Your task to perform on an android device: Open Google Chrome and click the shortcut for Amazon.com Image 0: 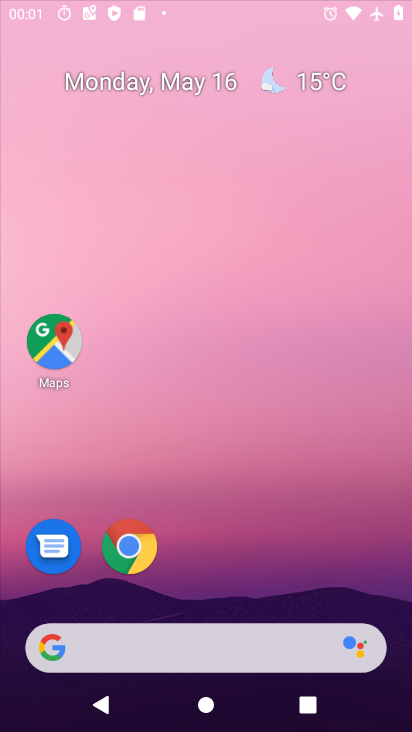
Step 0: drag from (203, 276) to (158, 47)
Your task to perform on an android device: Open Google Chrome and click the shortcut for Amazon.com Image 1: 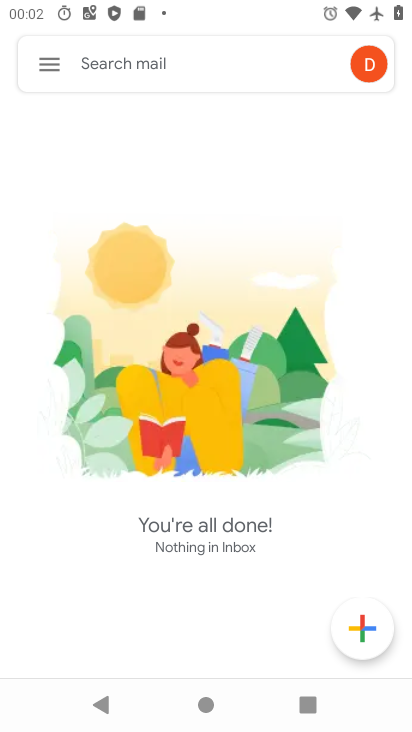
Step 1: click (204, 294)
Your task to perform on an android device: Open Google Chrome and click the shortcut for Amazon.com Image 2: 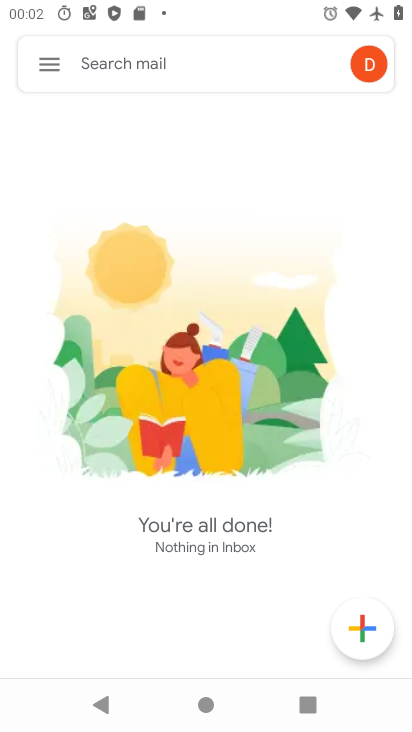
Step 2: press back button
Your task to perform on an android device: Open Google Chrome and click the shortcut for Amazon.com Image 3: 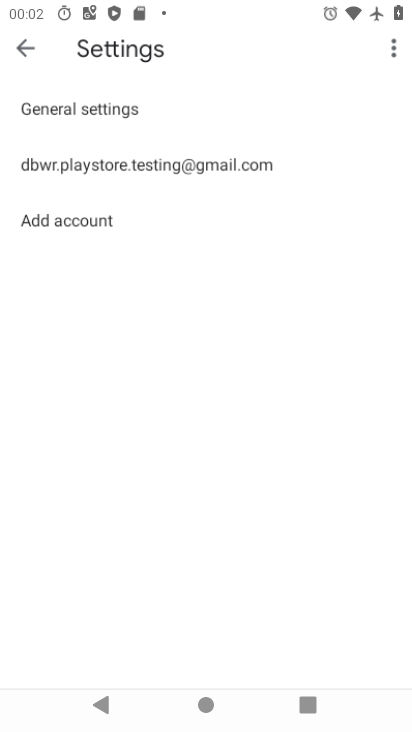
Step 3: press back button
Your task to perform on an android device: Open Google Chrome and click the shortcut for Amazon.com Image 4: 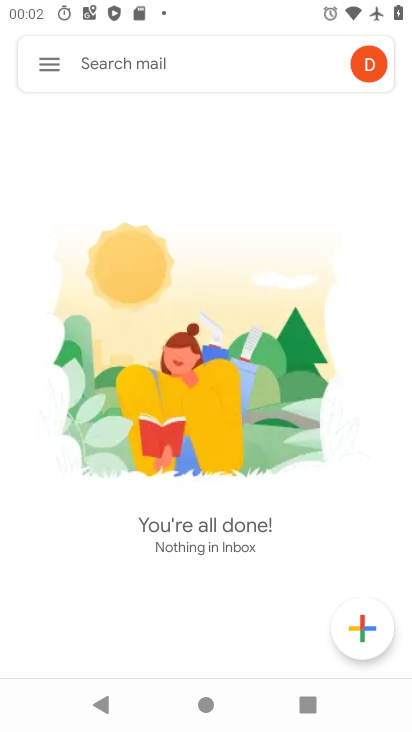
Step 4: click (45, 64)
Your task to perform on an android device: Open Google Chrome and click the shortcut for Amazon.com Image 5: 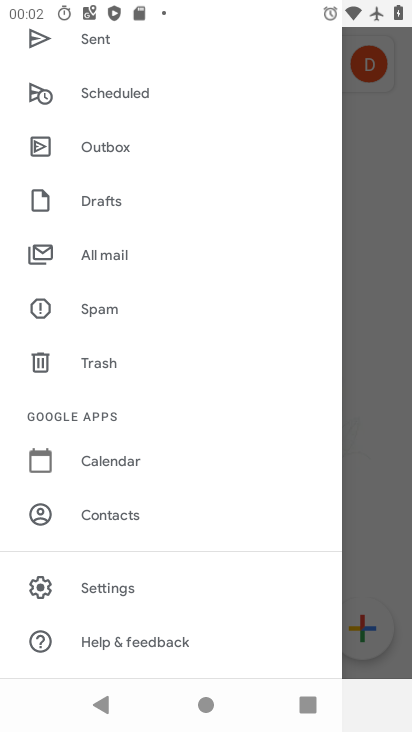
Step 5: click (103, 590)
Your task to perform on an android device: Open Google Chrome and click the shortcut for Amazon.com Image 6: 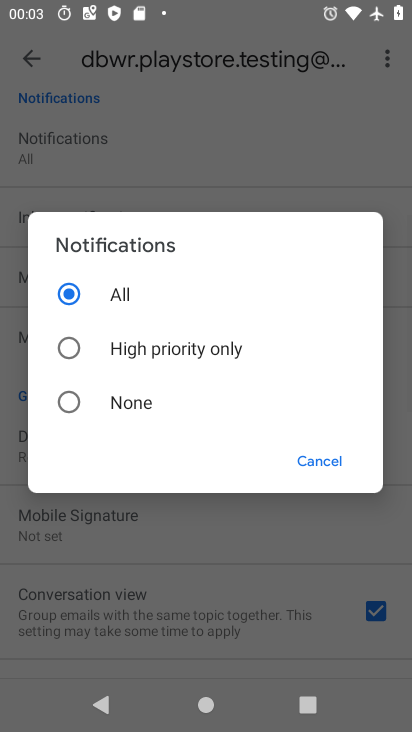
Step 6: press back button
Your task to perform on an android device: Open Google Chrome and click the shortcut for Amazon.com Image 7: 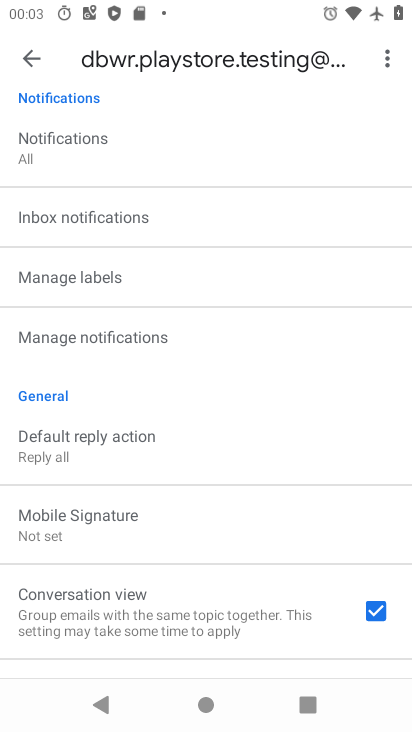
Step 7: press home button
Your task to perform on an android device: Open Google Chrome and click the shortcut for Amazon.com Image 8: 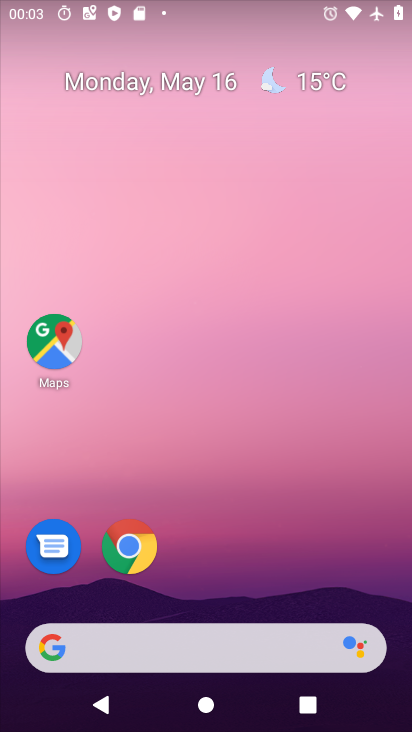
Step 8: drag from (248, 649) to (155, 167)
Your task to perform on an android device: Open Google Chrome and click the shortcut for Amazon.com Image 9: 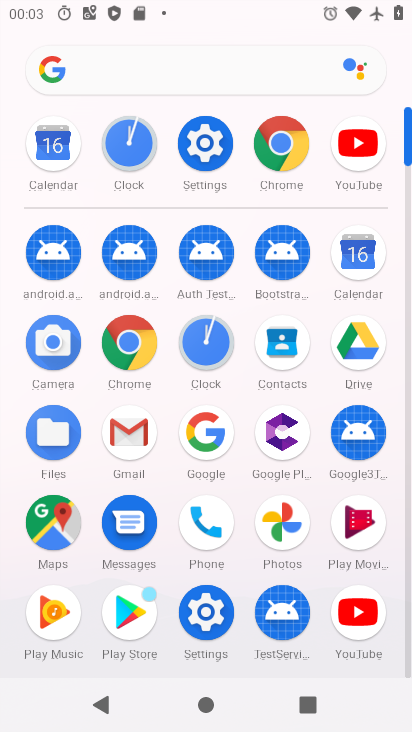
Step 9: click (123, 346)
Your task to perform on an android device: Open Google Chrome and click the shortcut for Amazon.com Image 10: 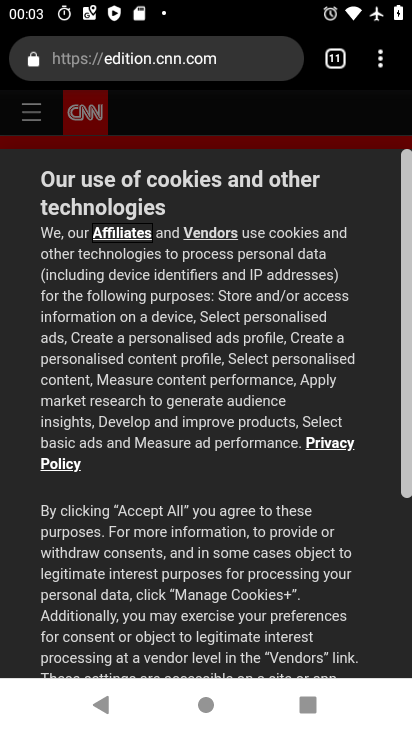
Step 10: click (377, 59)
Your task to perform on an android device: Open Google Chrome and click the shortcut for Amazon.com Image 11: 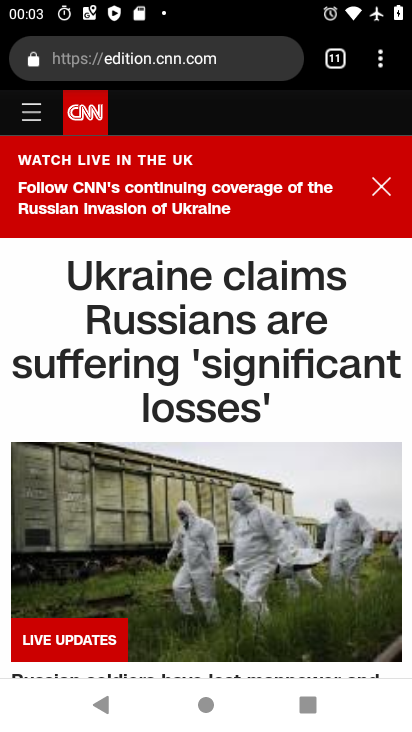
Step 11: click (385, 55)
Your task to perform on an android device: Open Google Chrome and click the shortcut for Amazon.com Image 12: 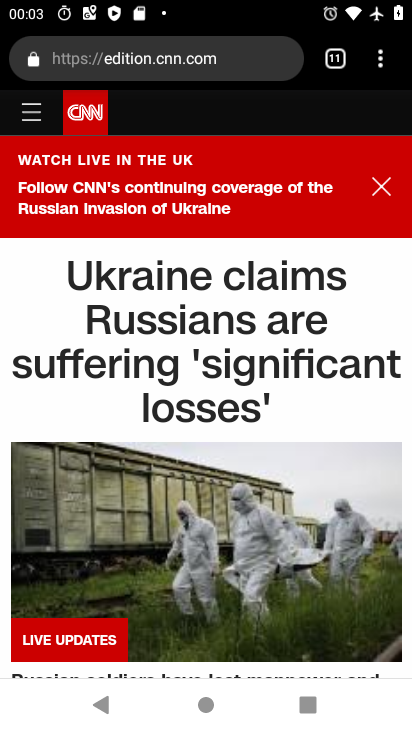
Step 12: drag from (375, 64) to (160, 112)
Your task to perform on an android device: Open Google Chrome and click the shortcut for Amazon.com Image 13: 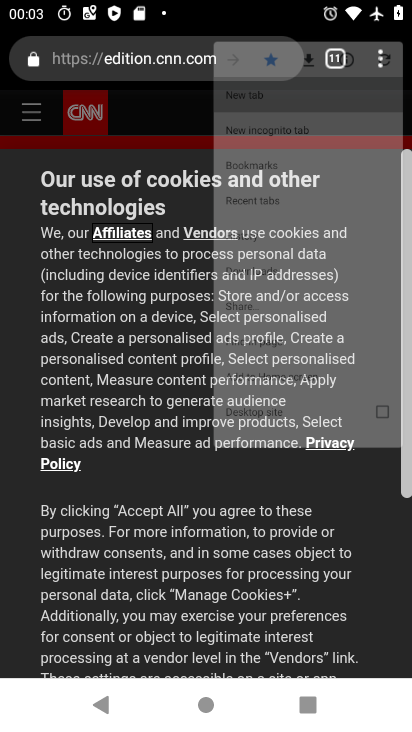
Step 13: click (164, 108)
Your task to perform on an android device: Open Google Chrome and click the shortcut for Amazon.com Image 14: 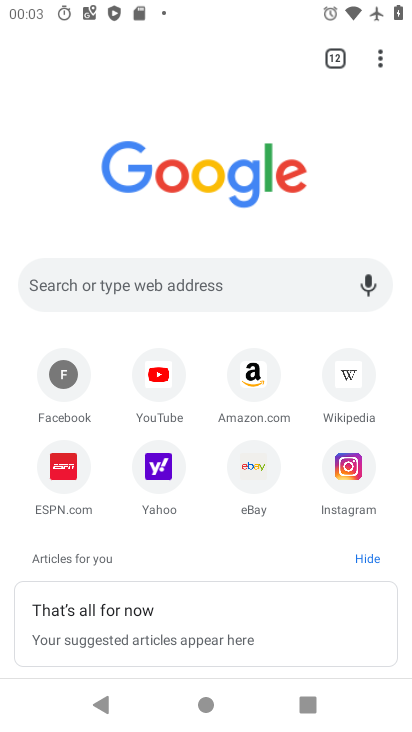
Step 14: click (241, 384)
Your task to perform on an android device: Open Google Chrome and click the shortcut for Amazon.com Image 15: 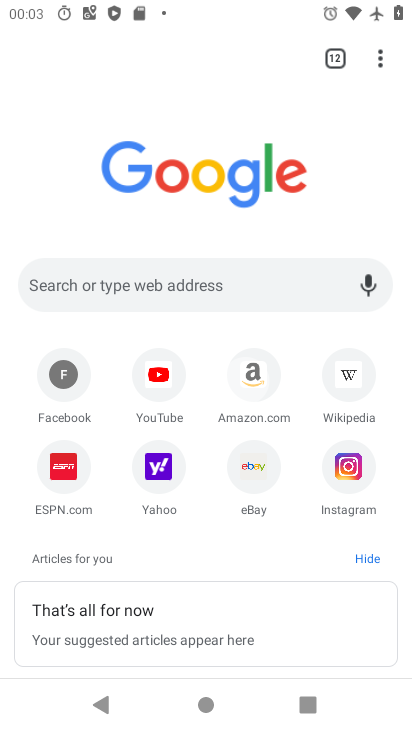
Step 15: click (241, 384)
Your task to perform on an android device: Open Google Chrome and click the shortcut for Amazon.com Image 16: 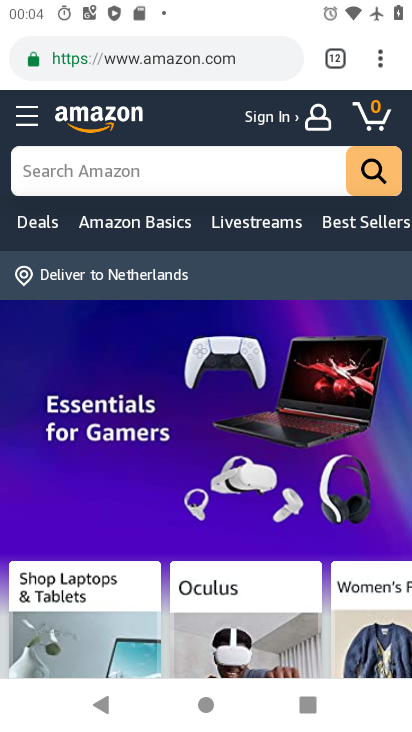
Step 16: task complete